Your task to perform on an android device: Open settings Image 0: 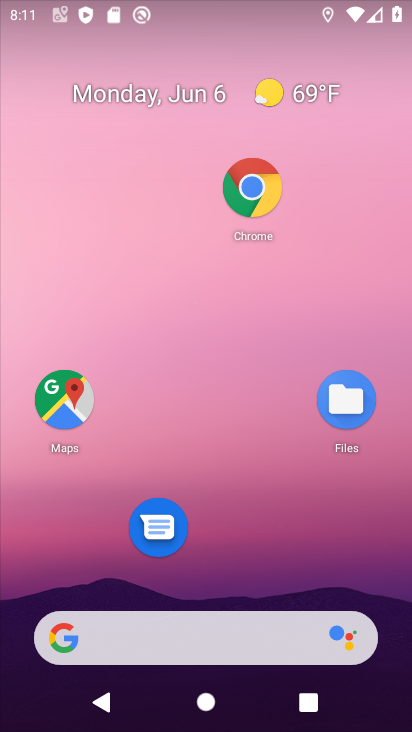
Step 0: drag from (260, 564) to (283, 13)
Your task to perform on an android device: Open settings Image 1: 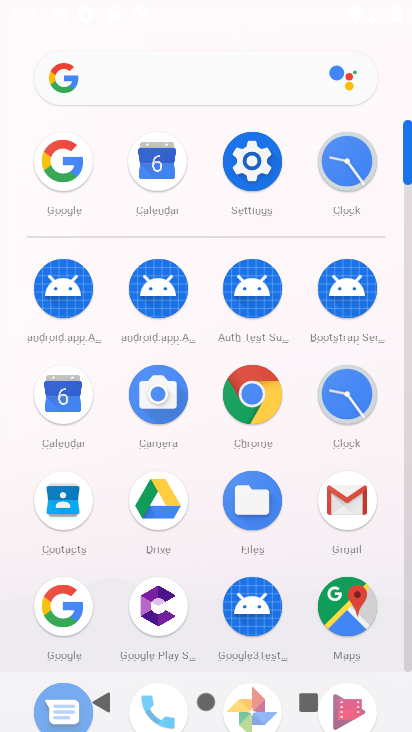
Step 1: click (260, 169)
Your task to perform on an android device: Open settings Image 2: 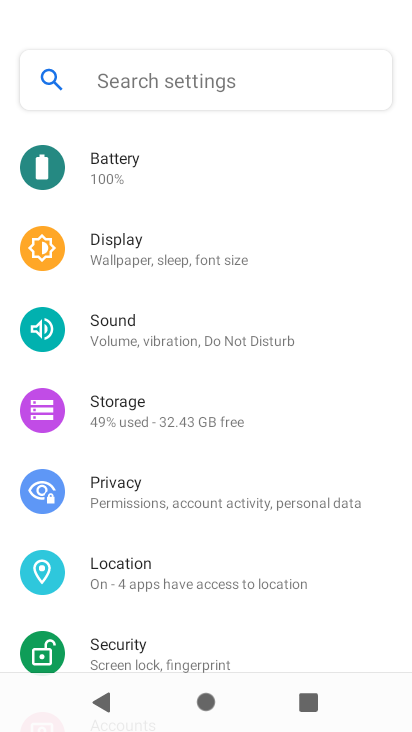
Step 2: task complete